Your task to perform on an android device: Open calendar and show me the fourth week of next month Image 0: 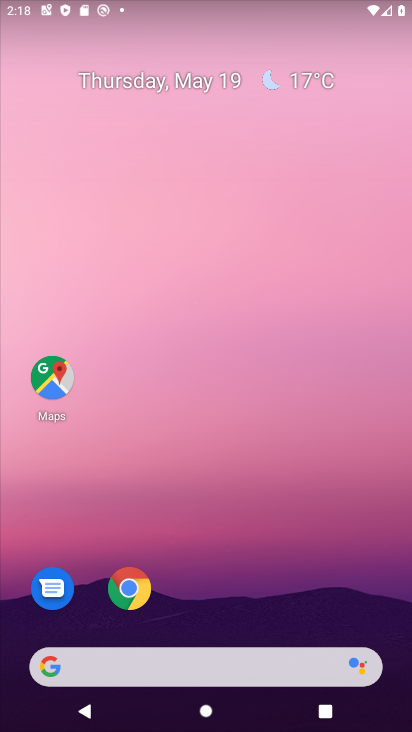
Step 0: drag from (210, 490) to (180, 124)
Your task to perform on an android device: Open calendar and show me the fourth week of next month Image 1: 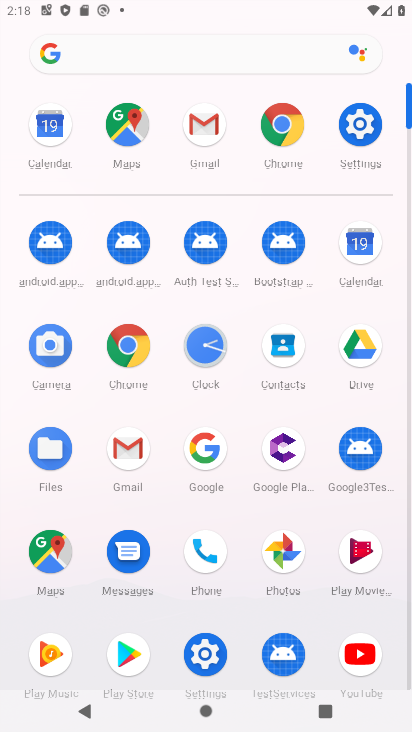
Step 1: click (62, 129)
Your task to perform on an android device: Open calendar and show me the fourth week of next month Image 2: 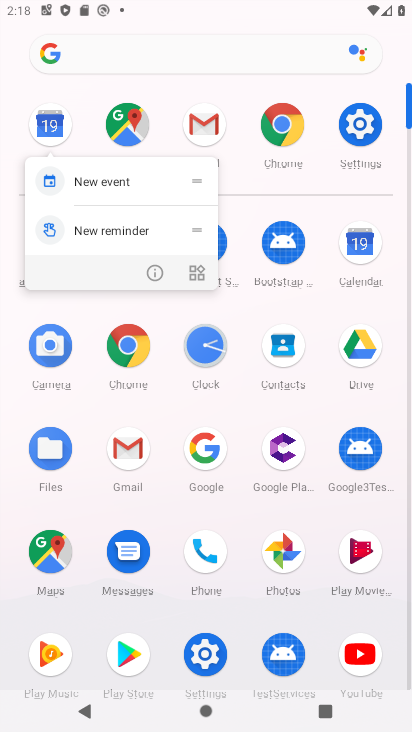
Step 2: click (36, 121)
Your task to perform on an android device: Open calendar and show me the fourth week of next month Image 3: 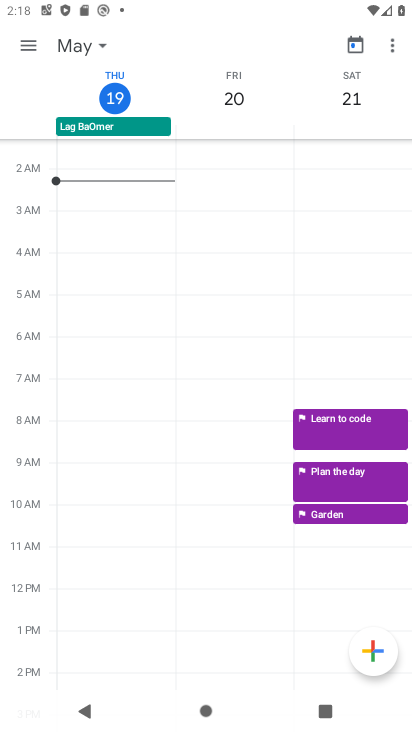
Step 3: click (35, 38)
Your task to perform on an android device: Open calendar and show me the fourth week of next month Image 4: 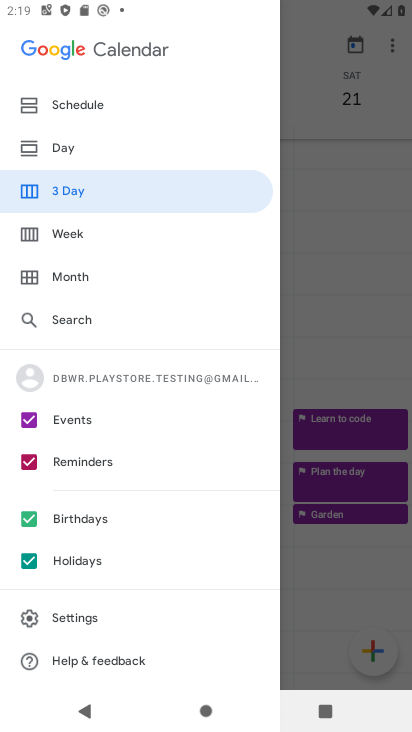
Step 4: click (93, 232)
Your task to perform on an android device: Open calendar and show me the fourth week of next month Image 5: 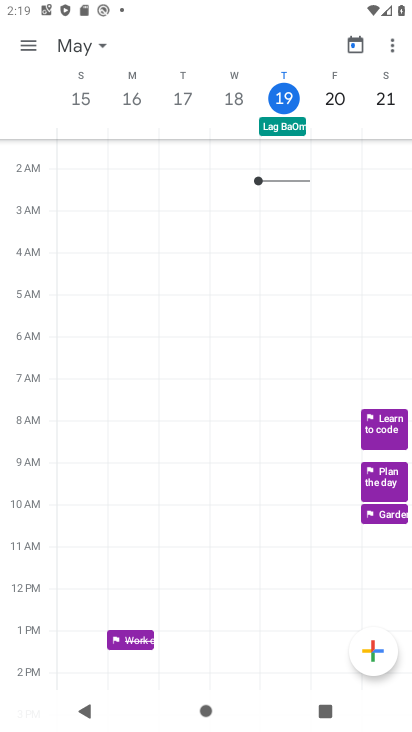
Step 5: click (87, 38)
Your task to perform on an android device: Open calendar and show me the fourth week of next month Image 6: 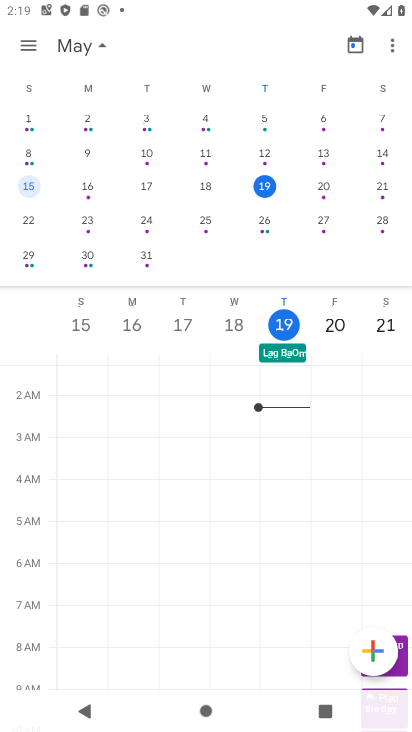
Step 6: drag from (336, 186) to (97, 169)
Your task to perform on an android device: Open calendar and show me the fourth week of next month Image 7: 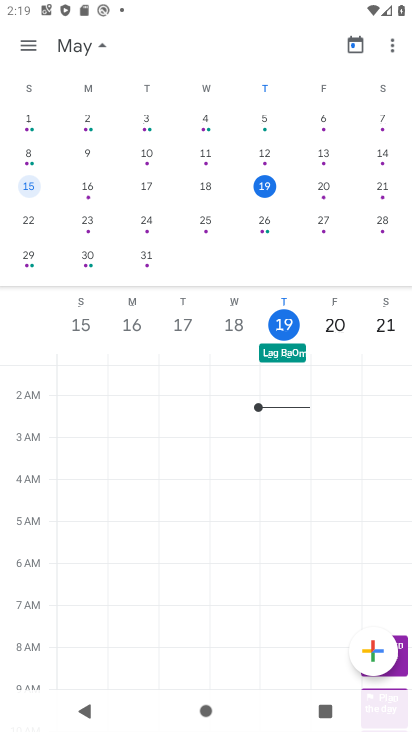
Step 7: drag from (379, 191) to (118, 198)
Your task to perform on an android device: Open calendar and show me the fourth week of next month Image 8: 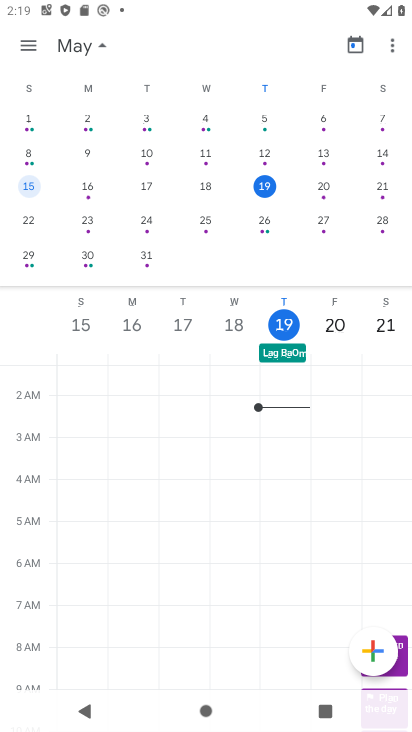
Step 8: drag from (389, 221) to (53, 217)
Your task to perform on an android device: Open calendar and show me the fourth week of next month Image 9: 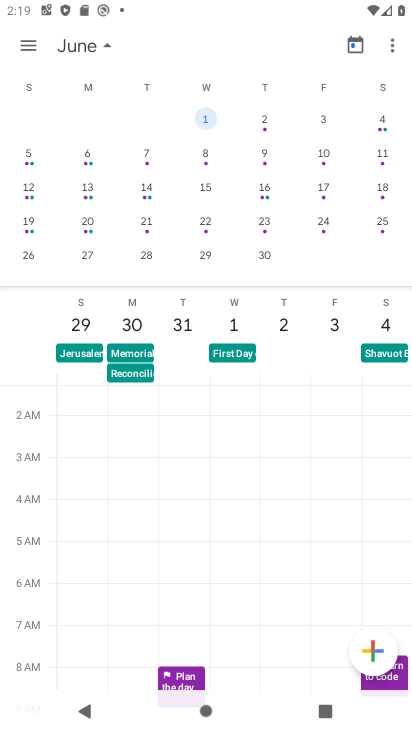
Step 9: click (40, 260)
Your task to perform on an android device: Open calendar and show me the fourth week of next month Image 10: 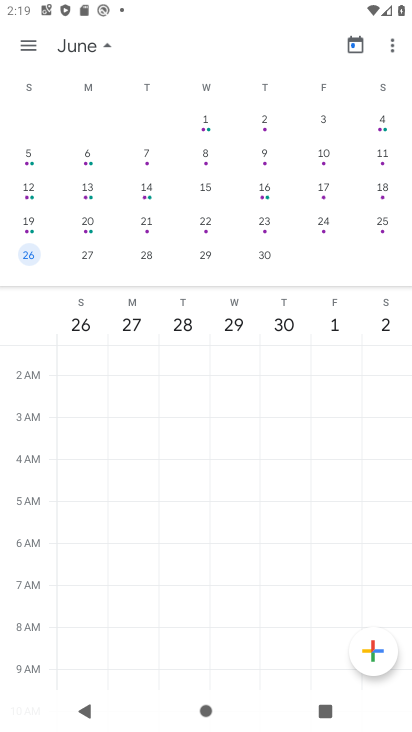
Step 10: task complete